Your task to perform on an android device: Open sound settings Image 0: 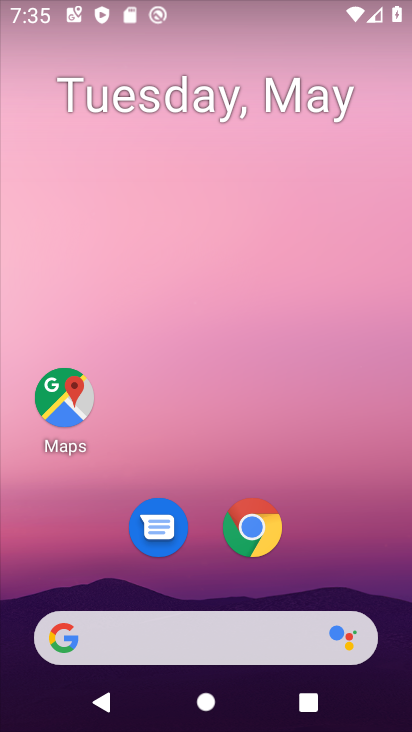
Step 0: drag from (329, 548) to (301, 256)
Your task to perform on an android device: Open sound settings Image 1: 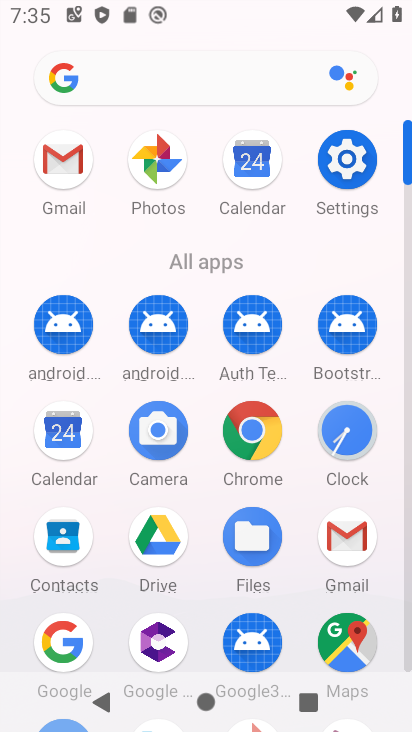
Step 1: click (345, 160)
Your task to perform on an android device: Open sound settings Image 2: 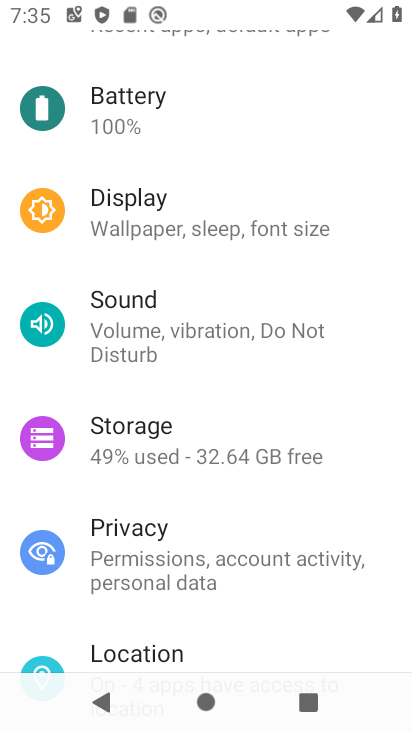
Step 2: click (148, 330)
Your task to perform on an android device: Open sound settings Image 3: 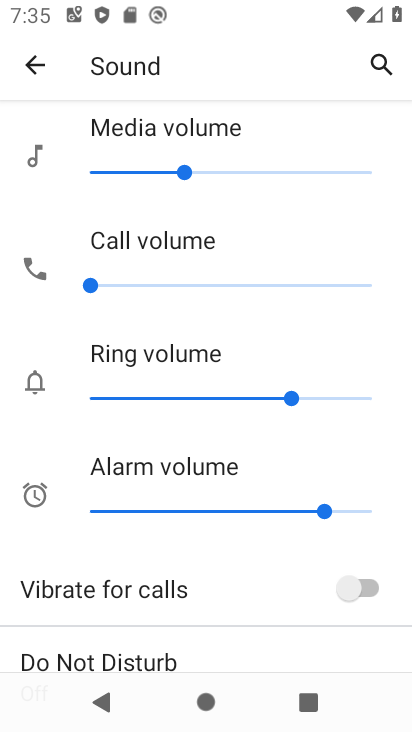
Step 3: task complete